Your task to perform on an android device: Go to ESPN.com Image 0: 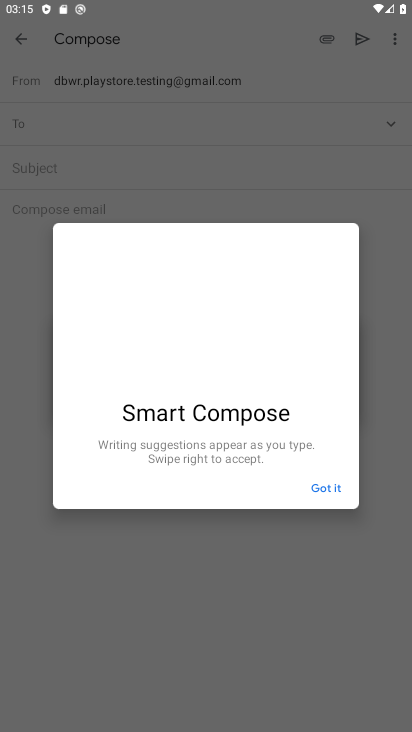
Step 0: press home button
Your task to perform on an android device: Go to ESPN.com Image 1: 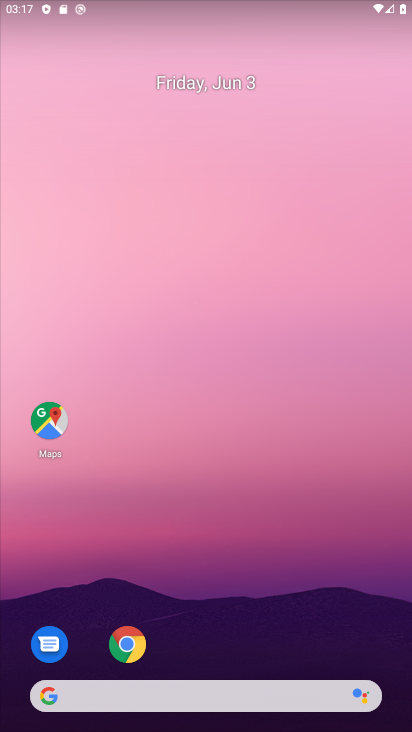
Step 1: drag from (281, 658) to (396, 90)
Your task to perform on an android device: Go to ESPN.com Image 2: 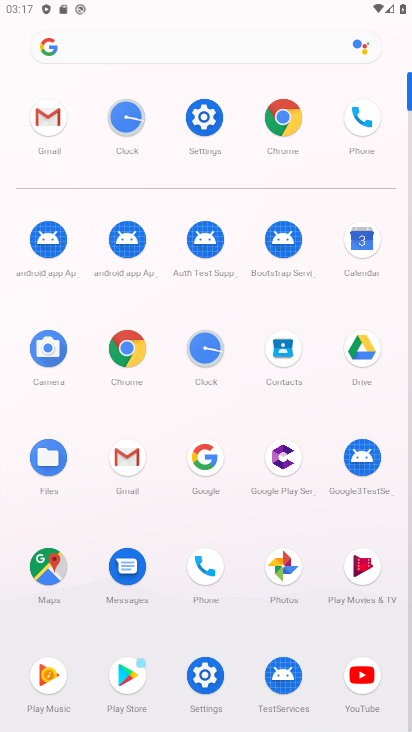
Step 2: click (122, 348)
Your task to perform on an android device: Go to ESPN.com Image 3: 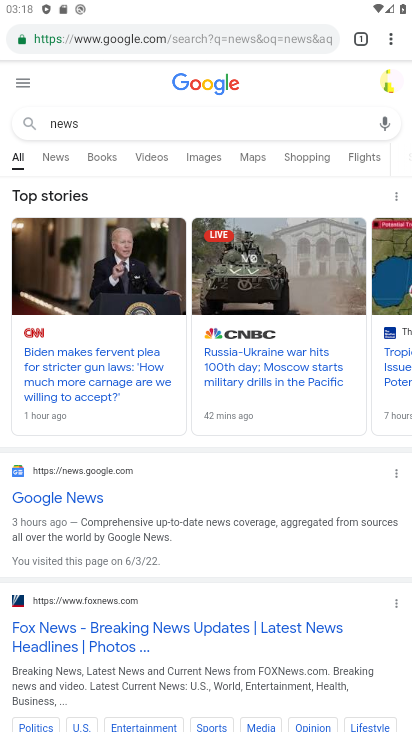
Step 3: click (132, 40)
Your task to perform on an android device: Go to ESPN.com Image 4: 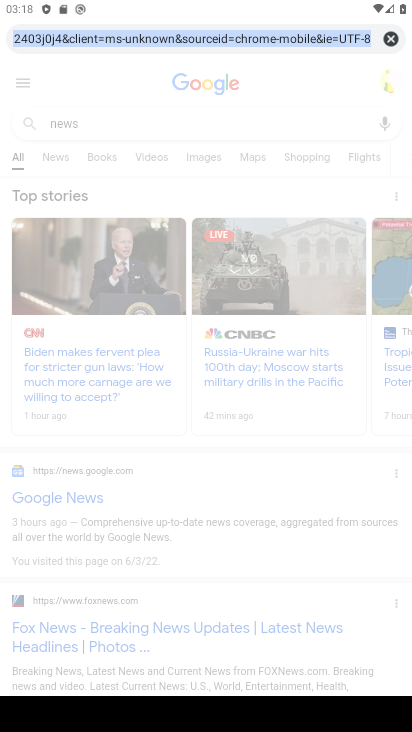
Step 4: click (388, 41)
Your task to perform on an android device: Go to ESPN.com Image 5: 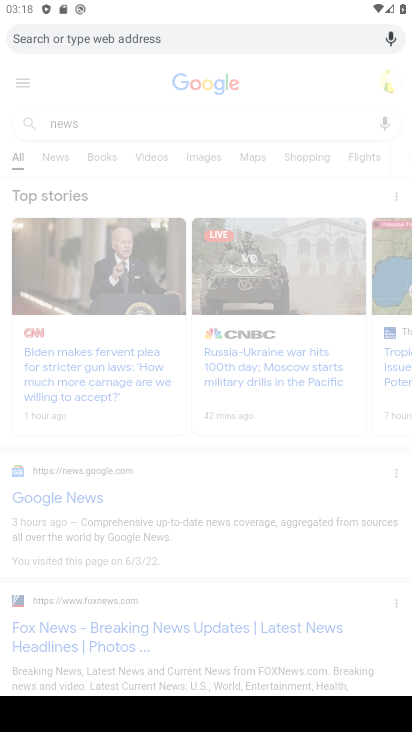
Step 5: type " ESPN.com"
Your task to perform on an android device: Go to ESPN.com Image 6: 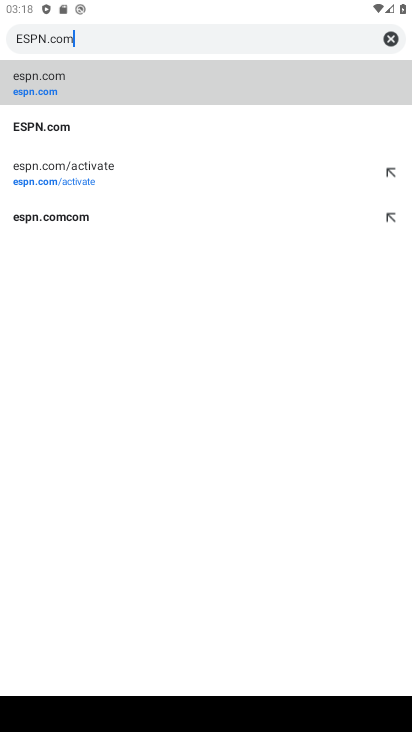
Step 6: click (37, 88)
Your task to perform on an android device: Go to ESPN.com Image 7: 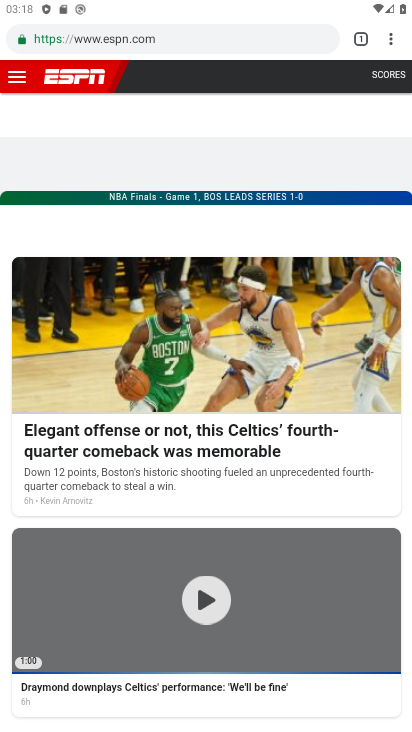
Step 7: task complete